Your task to perform on an android device: star an email in the gmail app Image 0: 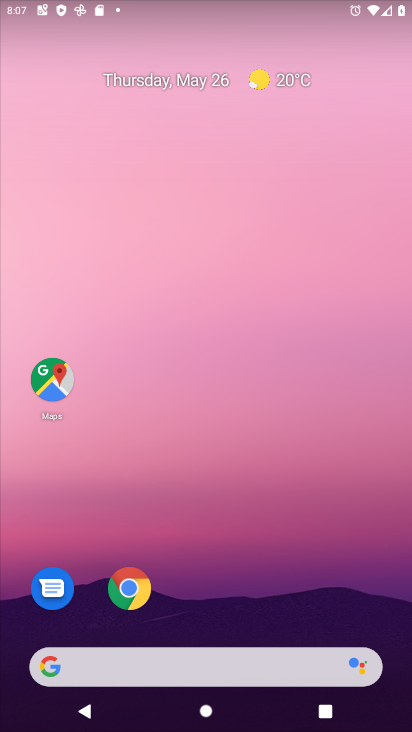
Step 0: drag from (356, 610) to (296, 0)
Your task to perform on an android device: star an email in the gmail app Image 1: 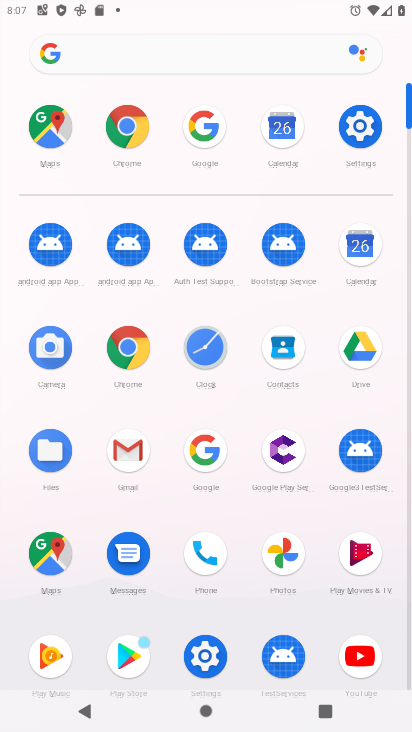
Step 1: click (145, 437)
Your task to perform on an android device: star an email in the gmail app Image 2: 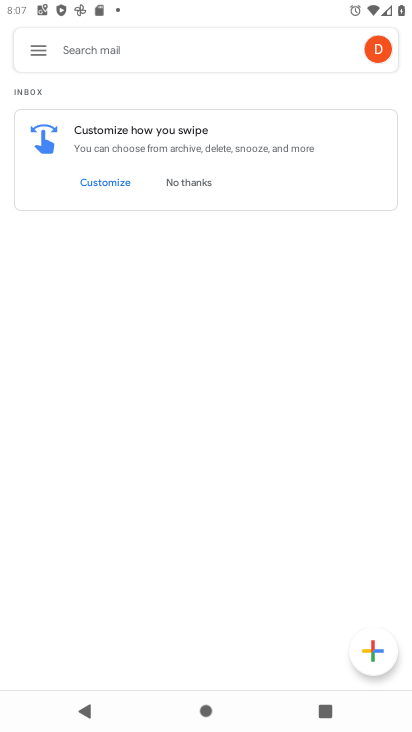
Step 2: task complete